Your task to perform on an android device: Turn off the flashlight Image 0: 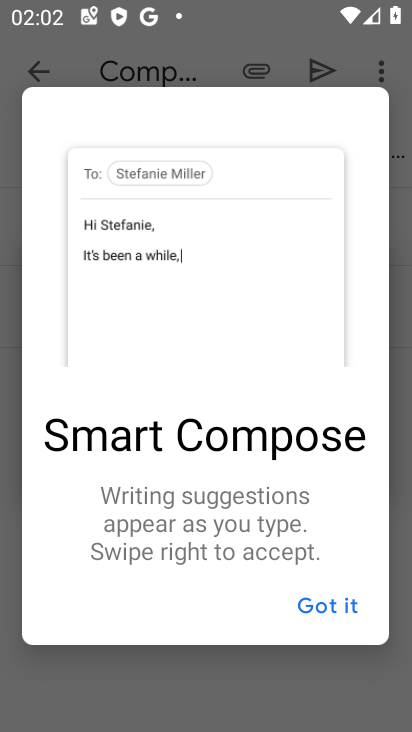
Step 0: press home button
Your task to perform on an android device: Turn off the flashlight Image 1: 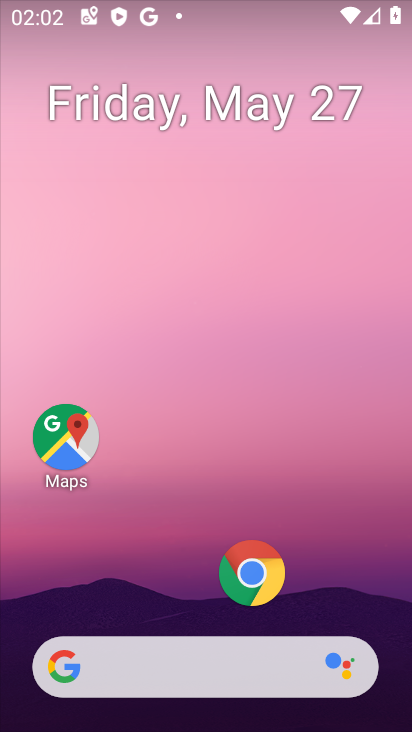
Step 1: drag from (219, 619) to (63, 53)
Your task to perform on an android device: Turn off the flashlight Image 2: 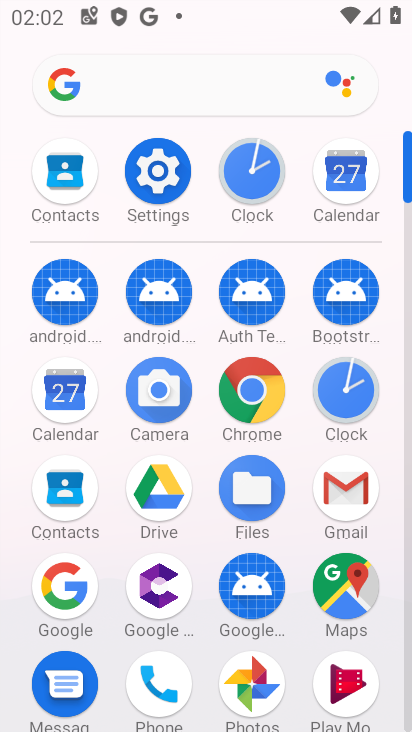
Step 2: click (155, 151)
Your task to perform on an android device: Turn off the flashlight Image 3: 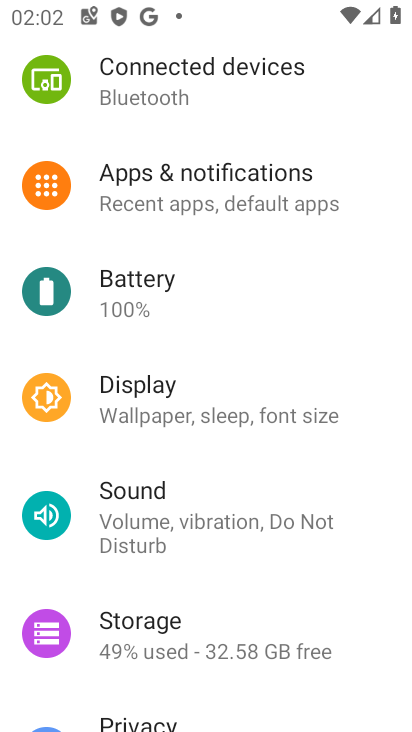
Step 3: task complete